Your task to perform on an android device: turn on the 24-hour format for clock Image 0: 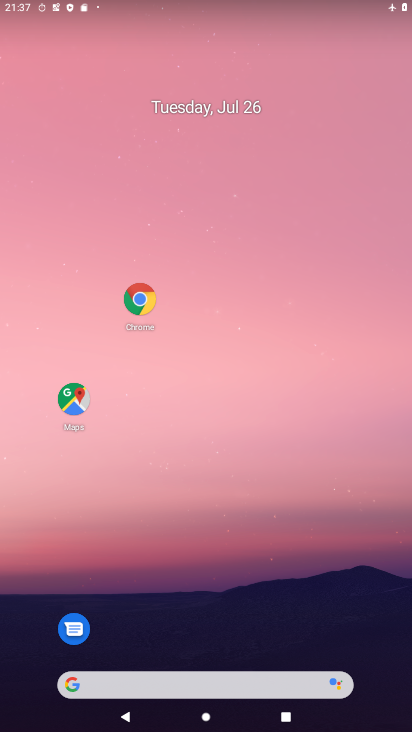
Step 0: drag from (233, 431) to (228, 177)
Your task to perform on an android device: turn on the 24-hour format for clock Image 1: 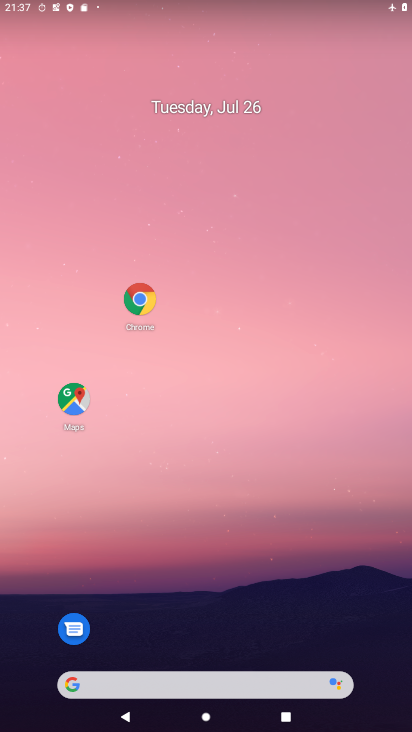
Step 1: click (195, 55)
Your task to perform on an android device: turn on the 24-hour format for clock Image 2: 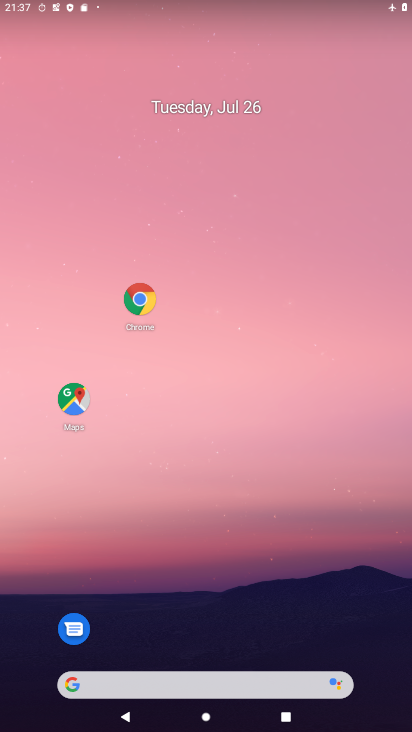
Step 2: drag from (166, 345) to (166, 140)
Your task to perform on an android device: turn on the 24-hour format for clock Image 3: 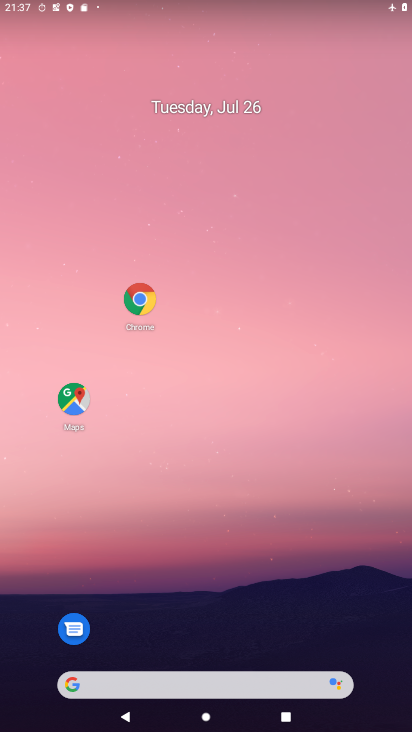
Step 3: drag from (227, 572) to (172, 158)
Your task to perform on an android device: turn on the 24-hour format for clock Image 4: 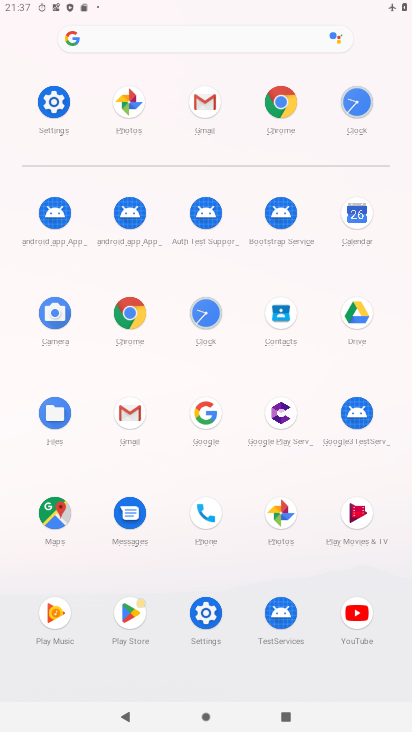
Step 4: click (215, 309)
Your task to perform on an android device: turn on the 24-hour format for clock Image 5: 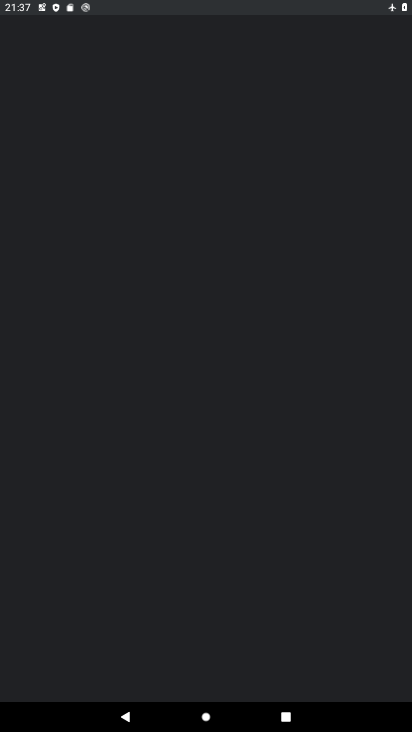
Step 5: click (212, 314)
Your task to perform on an android device: turn on the 24-hour format for clock Image 6: 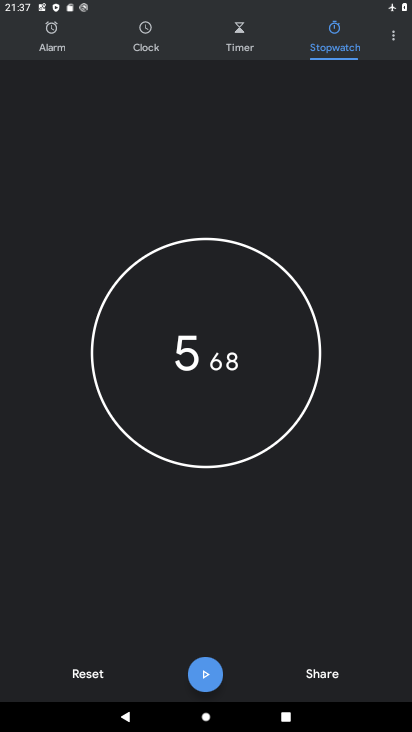
Step 6: click (214, 314)
Your task to perform on an android device: turn on the 24-hour format for clock Image 7: 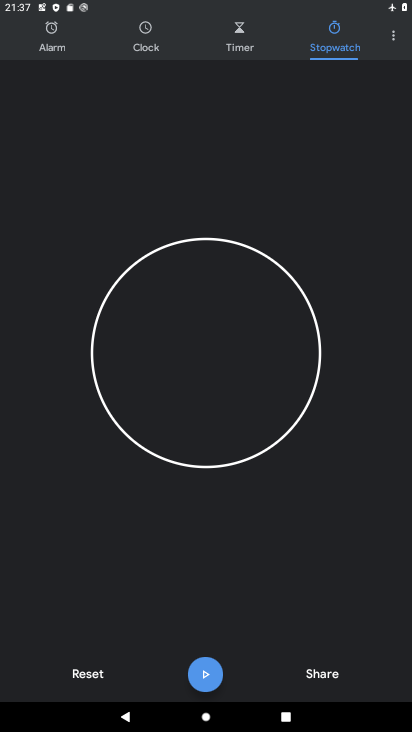
Step 7: click (391, 29)
Your task to perform on an android device: turn on the 24-hour format for clock Image 8: 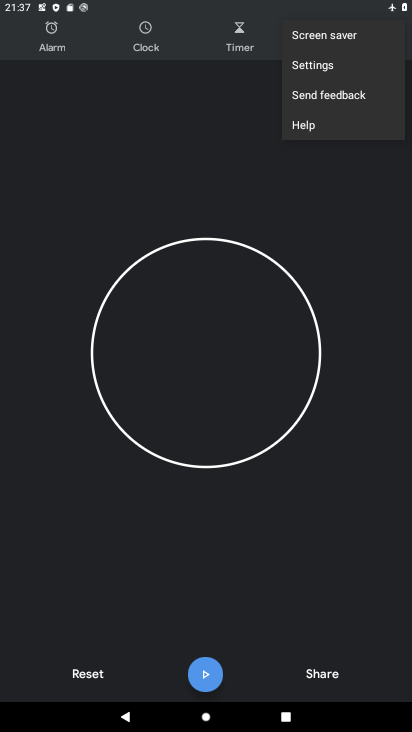
Step 8: click (303, 47)
Your task to perform on an android device: turn on the 24-hour format for clock Image 9: 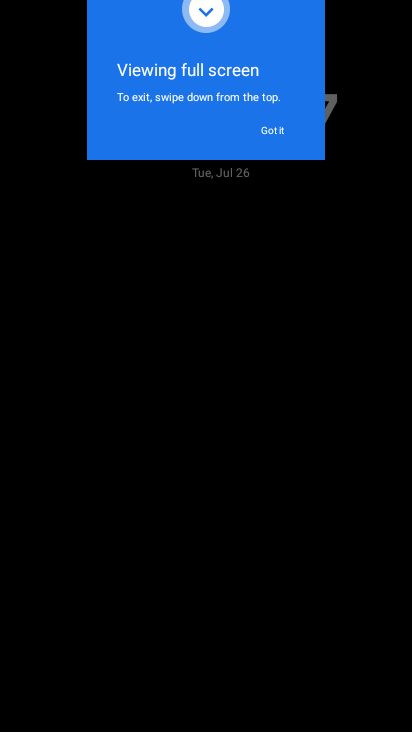
Step 9: click (272, 128)
Your task to perform on an android device: turn on the 24-hour format for clock Image 10: 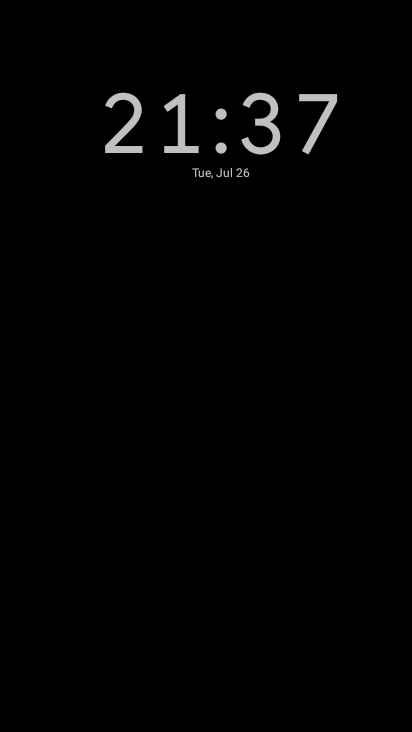
Step 10: drag from (375, 214) to (410, 215)
Your task to perform on an android device: turn on the 24-hour format for clock Image 11: 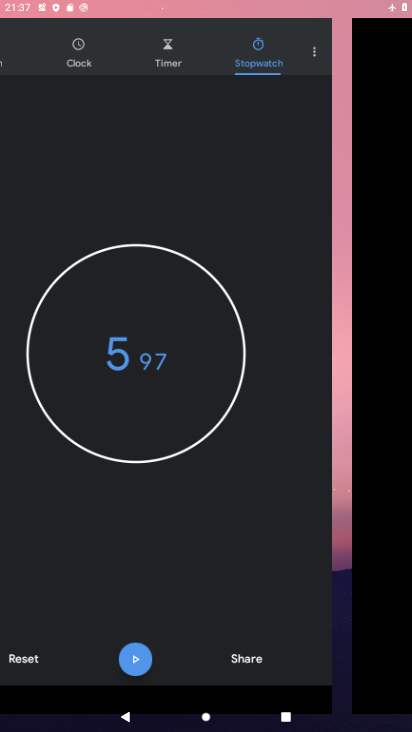
Step 11: click (395, 194)
Your task to perform on an android device: turn on the 24-hour format for clock Image 12: 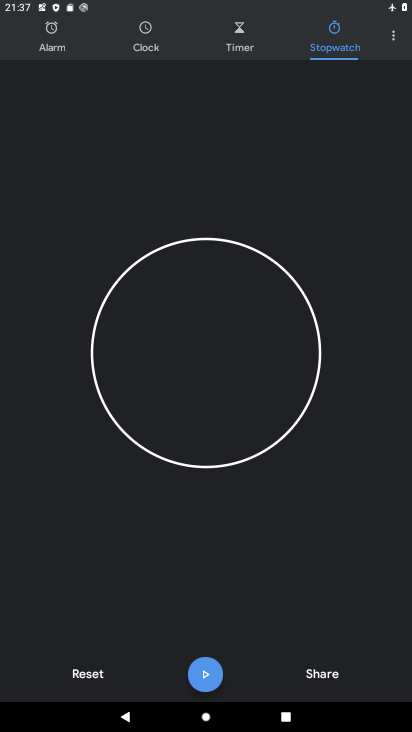
Step 12: drag from (308, 290) to (403, 326)
Your task to perform on an android device: turn on the 24-hour format for clock Image 13: 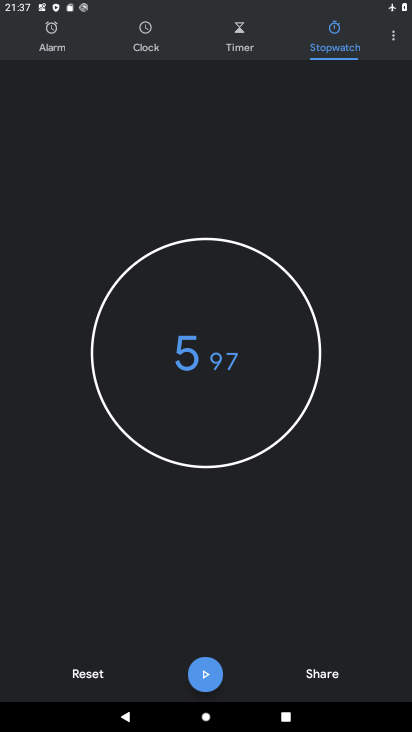
Step 13: click (394, 32)
Your task to perform on an android device: turn on the 24-hour format for clock Image 14: 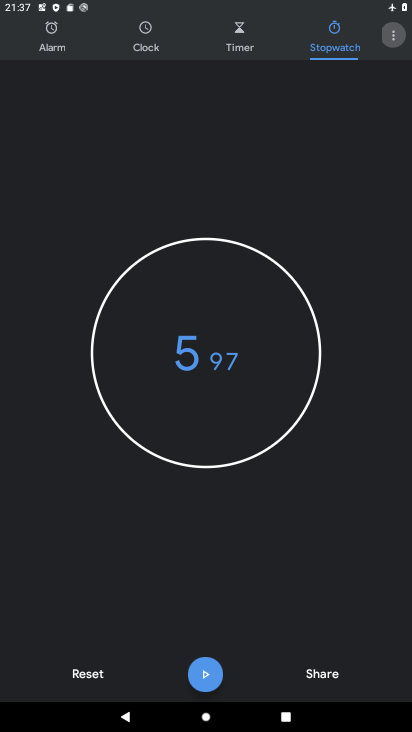
Step 14: click (394, 36)
Your task to perform on an android device: turn on the 24-hour format for clock Image 15: 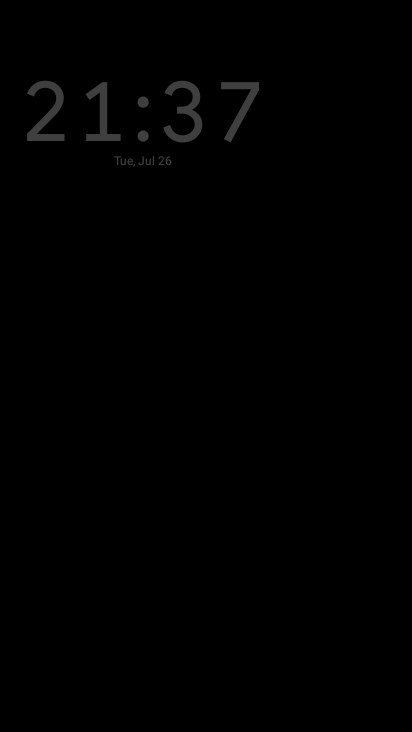
Step 15: click (324, 72)
Your task to perform on an android device: turn on the 24-hour format for clock Image 16: 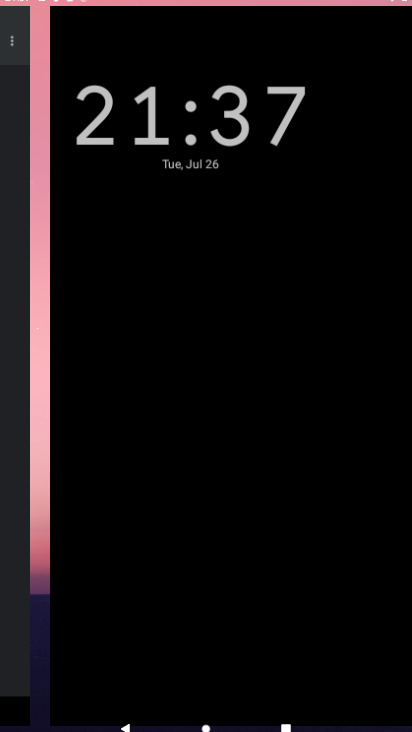
Step 16: click (323, 73)
Your task to perform on an android device: turn on the 24-hour format for clock Image 17: 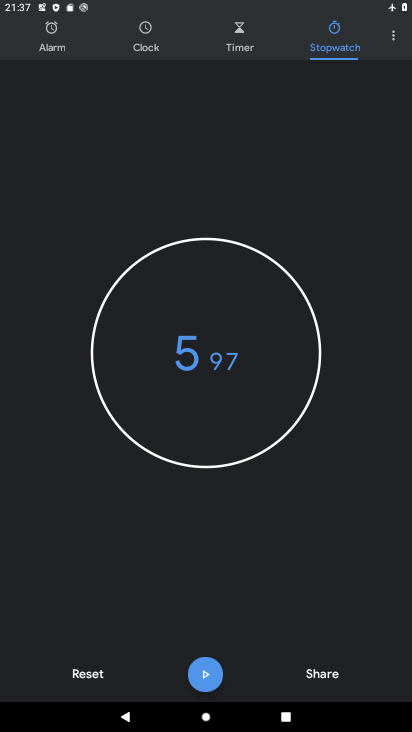
Step 17: click (386, 25)
Your task to perform on an android device: turn on the 24-hour format for clock Image 18: 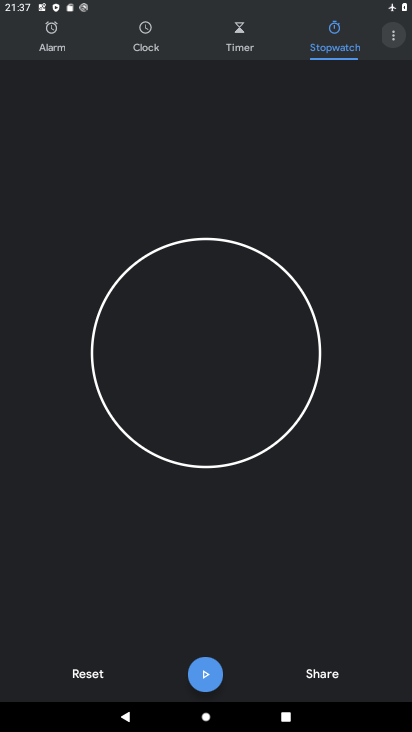
Step 18: click (393, 50)
Your task to perform on an android device: turn on the 24-hour format for clock Image 19: 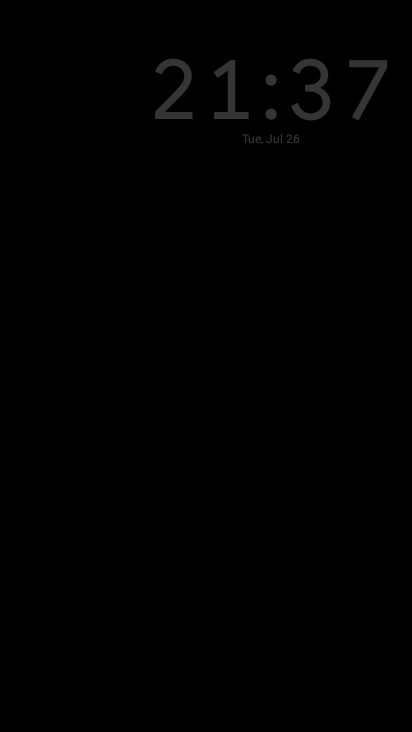
Step 19: click (310, 75)
Your task to perform on an android device: turn on the 24-hour format for clock Image 20: 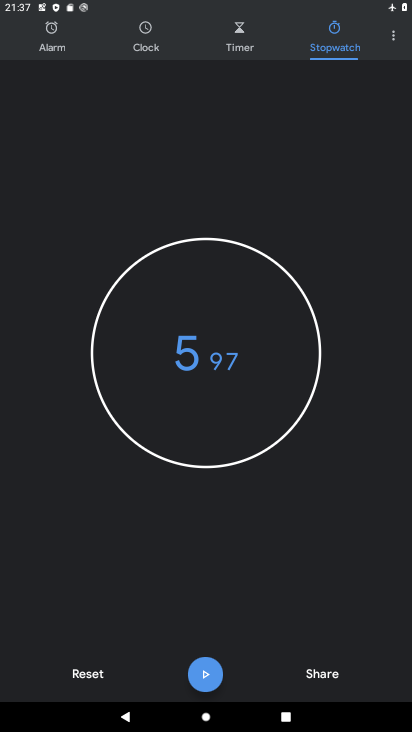
Step 20: press back button
Your task to perform on an android device: turn on the 24-hour format for clock Image 21: 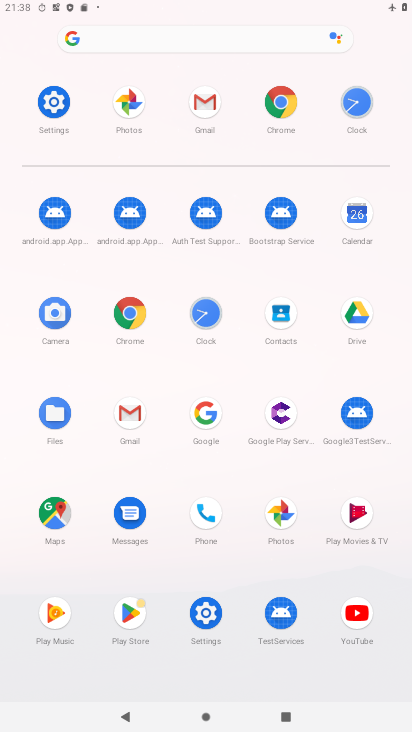
Step 21: click (207, 311)
Your task to perform on an android device: turn on the 24-hour format for clock Image 22: 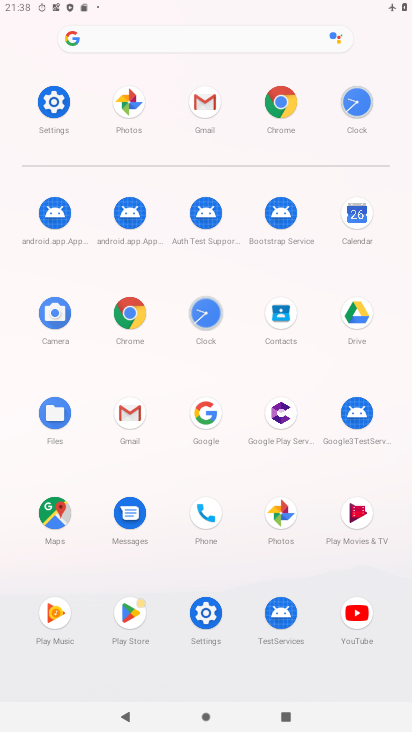
Step 22: click (207, 311)
Your task to perform on an android device: turn on the 24-hour format for clock Image 23: 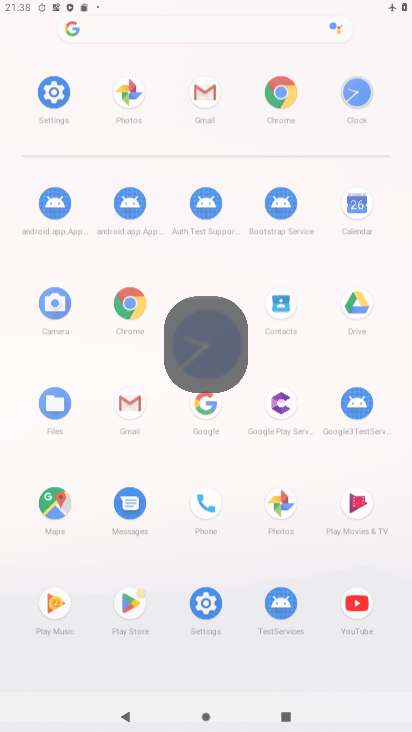
Step 23: click (206, 313)
Your task to perform on an android device: turn on the 24-hour format for clock Image 24: 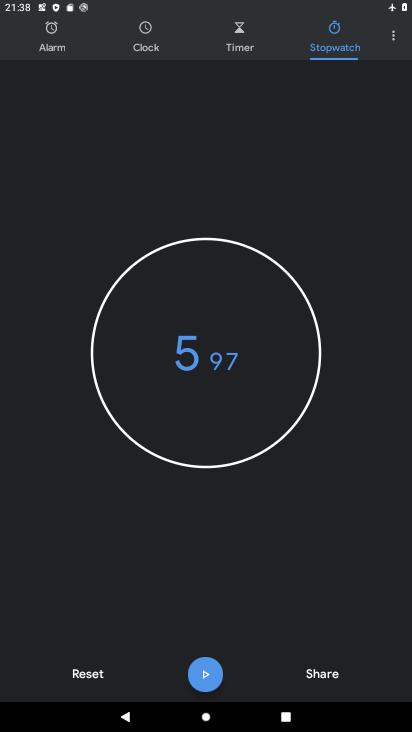
Step 24: click (388, 35)
Your task to perform on an android device: turn on the 24-hour format for clock Image 25: 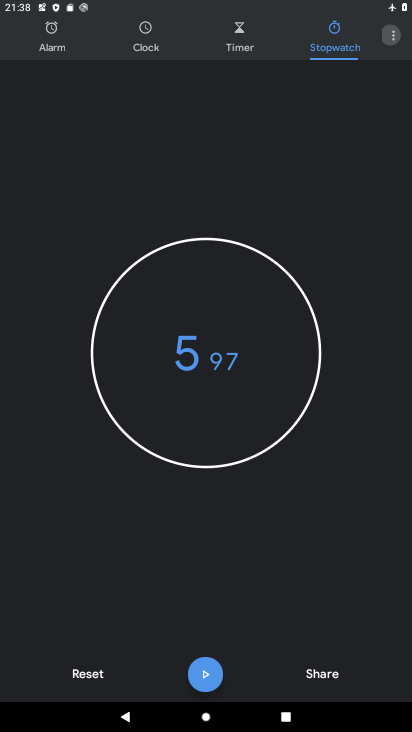
Step 25: click (388, 35)
Your task to perform on an android device: turn on the 24-hour format for clock Image 26: 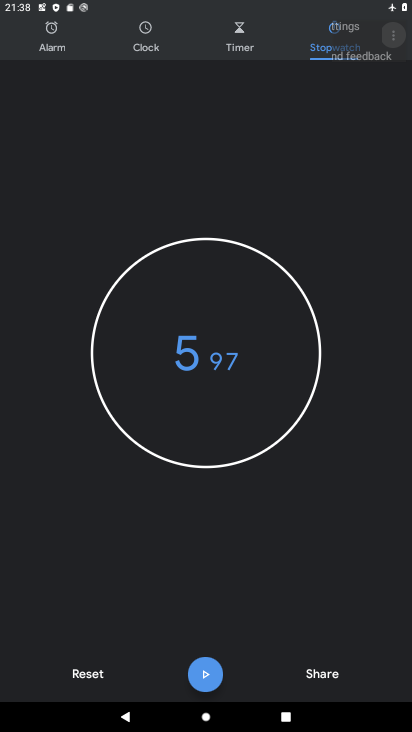
Step 26: click (388, 35)
Your task to perform on an android device: turn on the 24-hour format for clock Image 27: 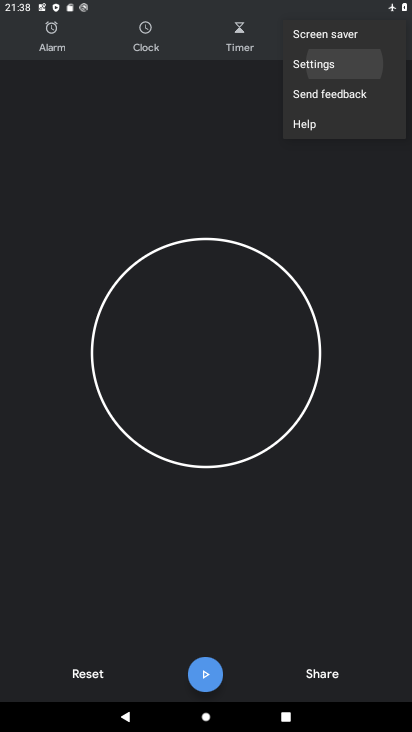
Step 27: click (388, 35)
Your task to perform on an android device: turn on the 24-hour format for clock Image 28: 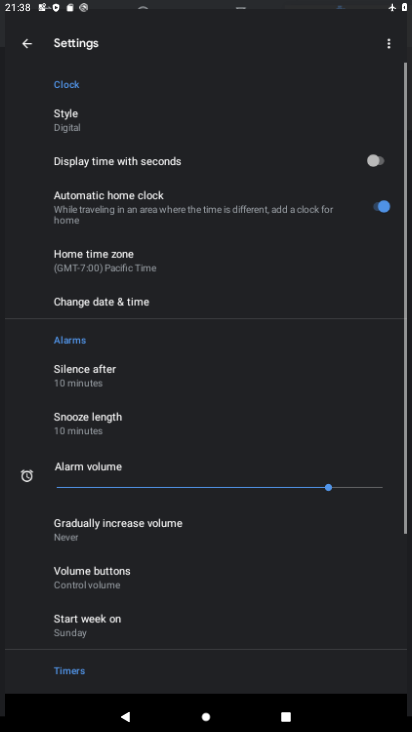
Step 28: click (388, 35)
Your task to perform on an android device: turn on the 24-hour format for clock Image 29: 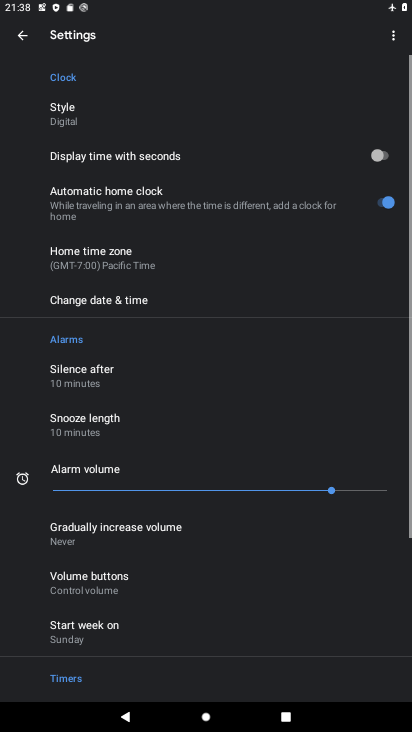
Step 29: click (388, 35)
Your task to perform on an android device: turn on the 24-hour format for clock Image 30: 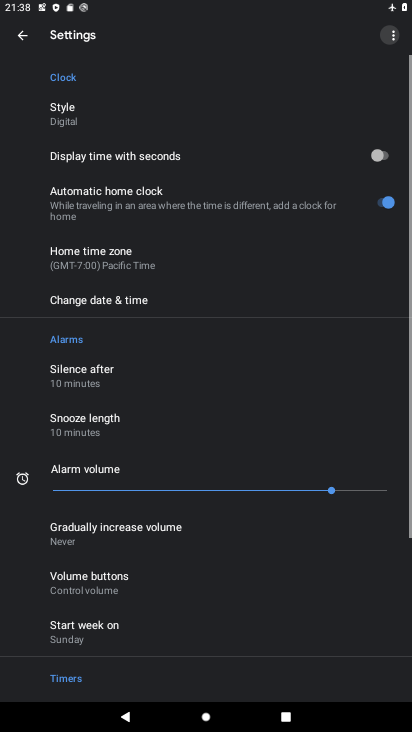
Step 30: click (366, 68)
Your task to perform on an android device: turn on the 24-hour format for clock Image 31: 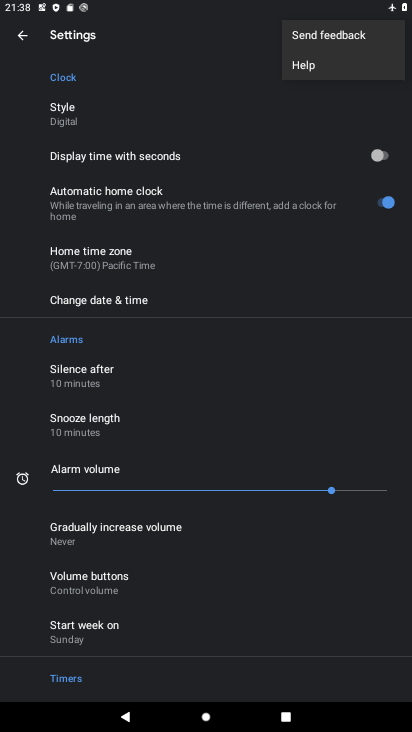
Step 31: click (123, 307)
Your task to perform on an android device: turn on the 24-hour format for clock Image 32: 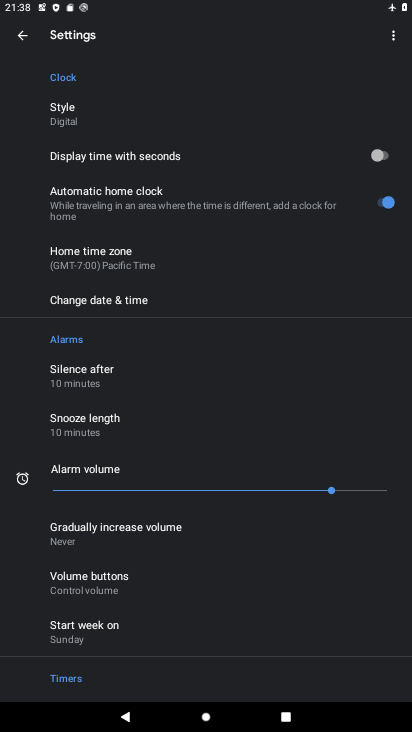
Step 32: click (123, 307)
Your task to perform on an android device: turn on the 24-hour format for clock Image 33: 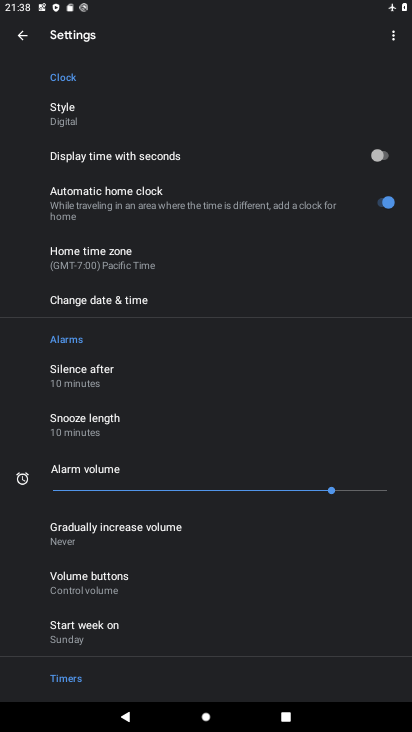
Step 33: click (123, 307)
Your task to perform on an android device: turn on the 24-hour format for clock Image 34: 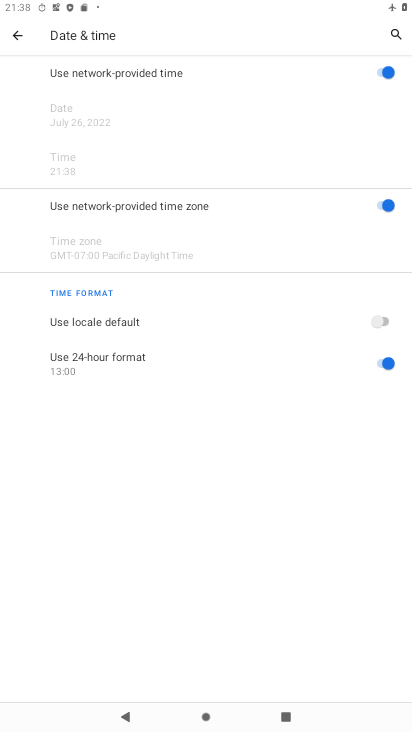
Step 34: task complete